Your task to perform on an android device: remove spam from my inbox in the gmail app Image 0: 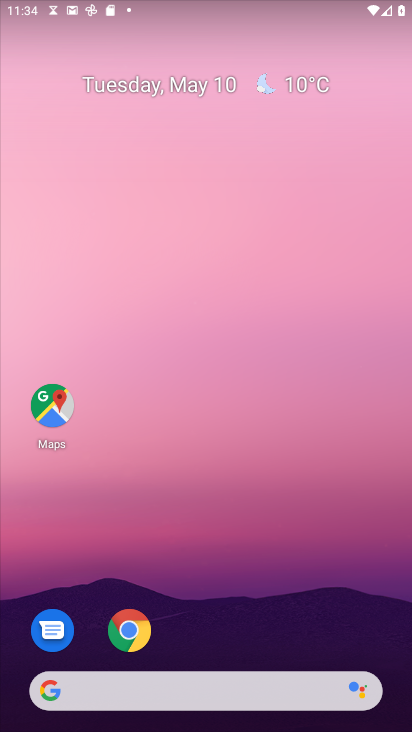
Step 0: drag from (233, 629) to (226, 176)
Your task to perform on an android device: remove spam from my inbox in the gmail app Image 1: 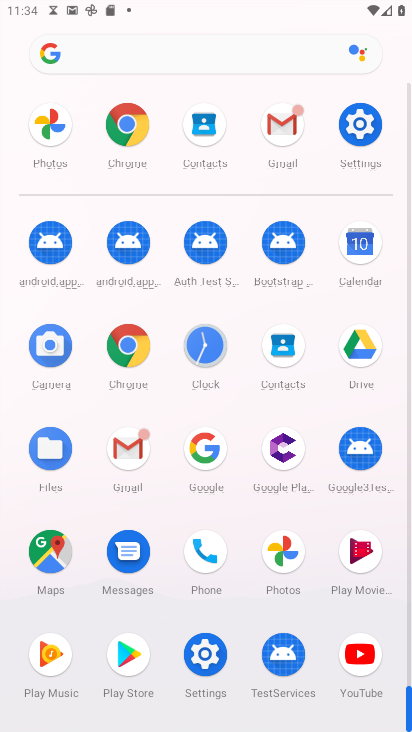
Step 1: click (280, 121)
Your task to perform on an android device: remove spam from my inbox in the gmail app Image 2: 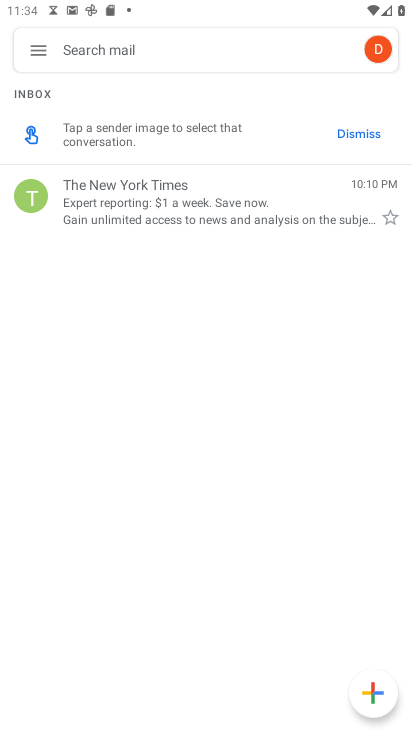
Step 2: click (29, 46)
Your task to perform on an android device: remove spam from my inbox in the gmail app Image 3: 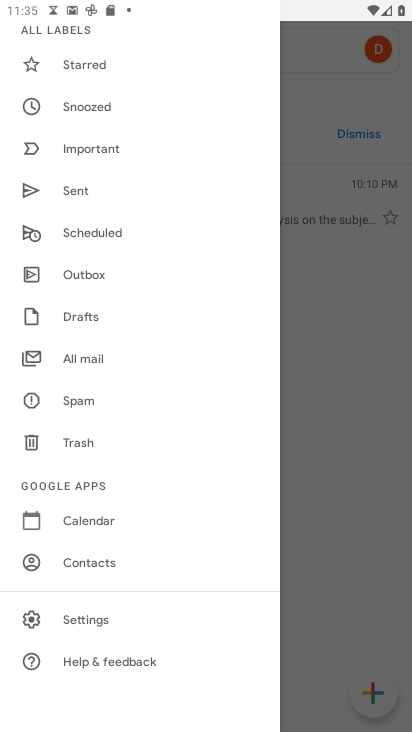
Step 3: click (104, 404)
Your task to perform on an android device: remove spam from my inbox in the gmail app Image 4: 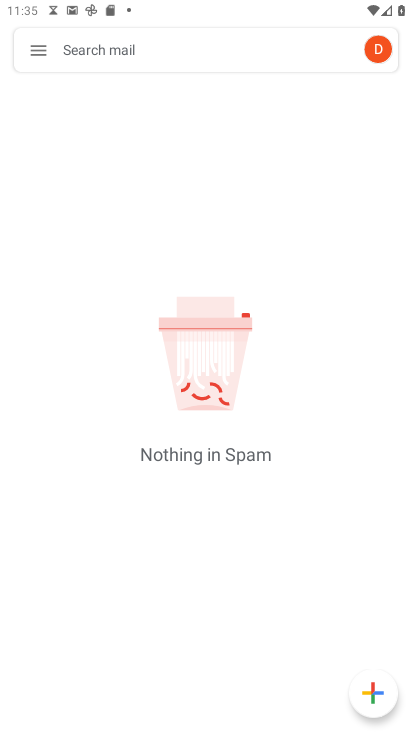
Step 4: task complete